Your task to perform on an android device: Search for seafood restaurants on Google Maps Image 0: 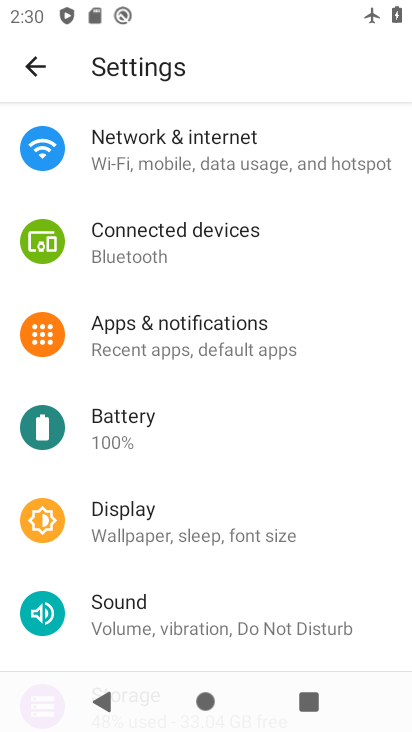
Step 0: press home button
Your task to perform on an android device: Search for seafood restaurants on Google Maps Image 1: 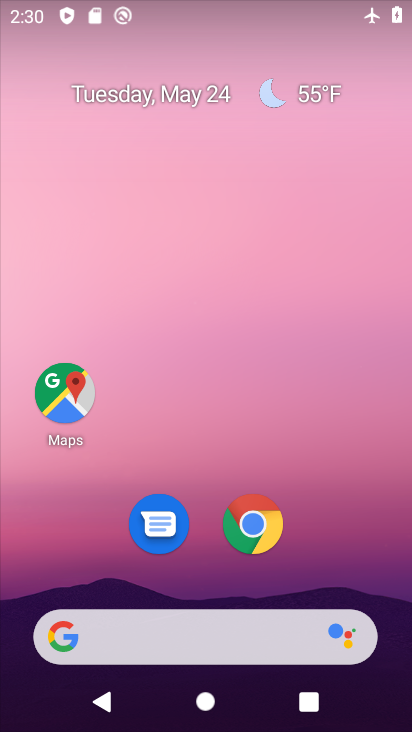
Step 1: click (67, 393)
Your task to perform on an android device: Search for seafood restaurants on Google Maps Image 2: 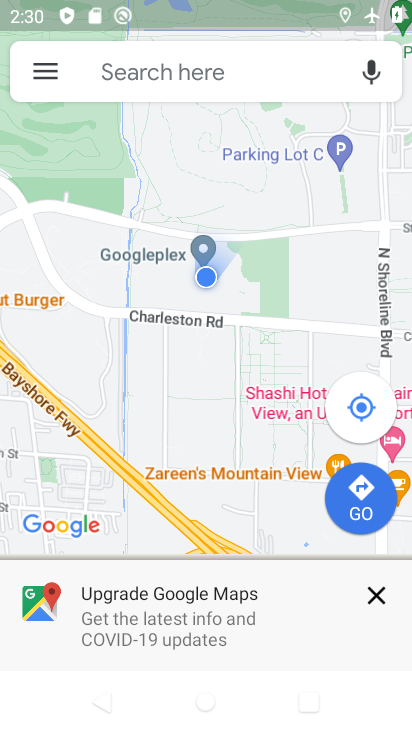
Step 2: click (199, 66)
Your task to perform on an android device: Search for seafood restaurants on Google Maps Image 3: 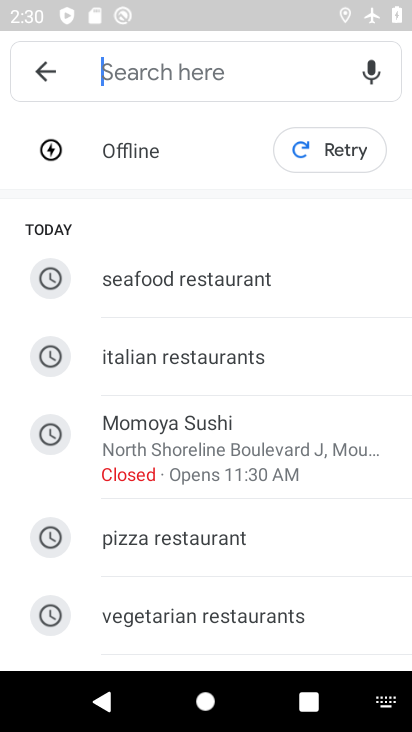
Step 3: click (170, 284)
Your task to perform on an android device: Search for seafood restaurants on Google Maps Image 4: 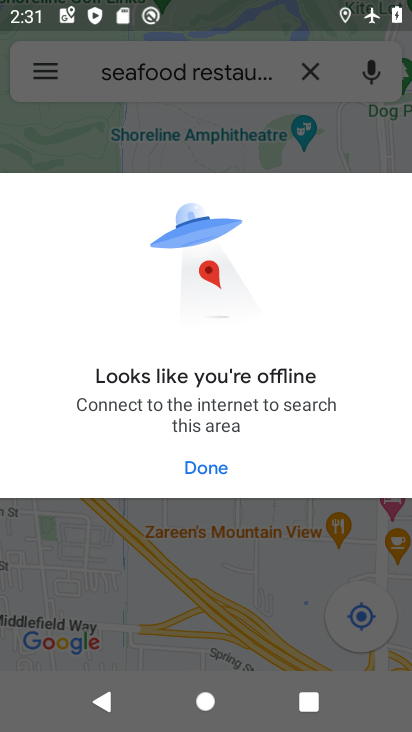
Step 4: task complete